Your task to perform on an android device: Open Android settings Image 0: 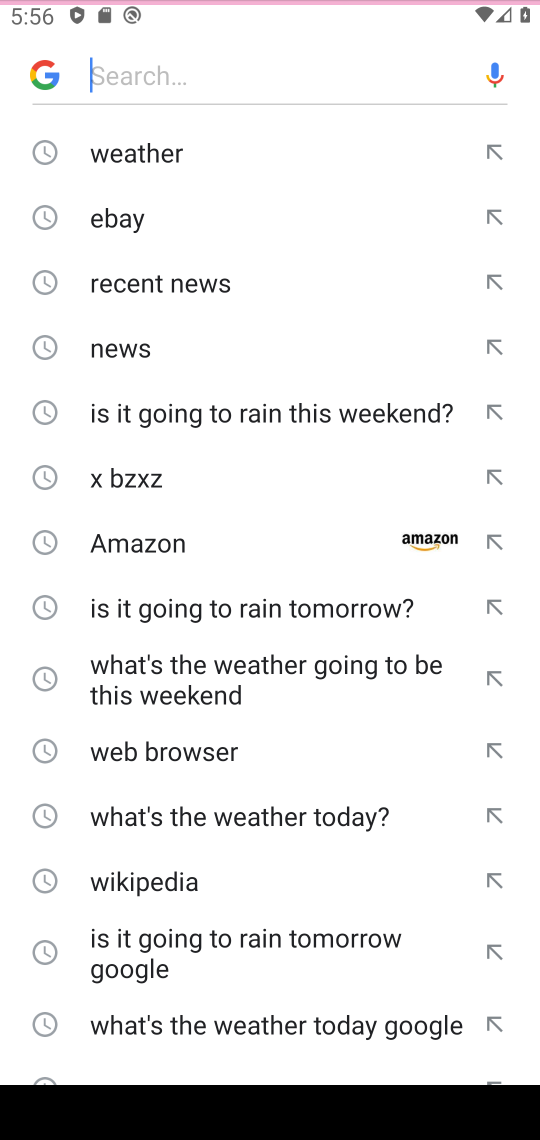
Step 0: press back button
Your task to perform on an android device: Open Android settings Image 1: 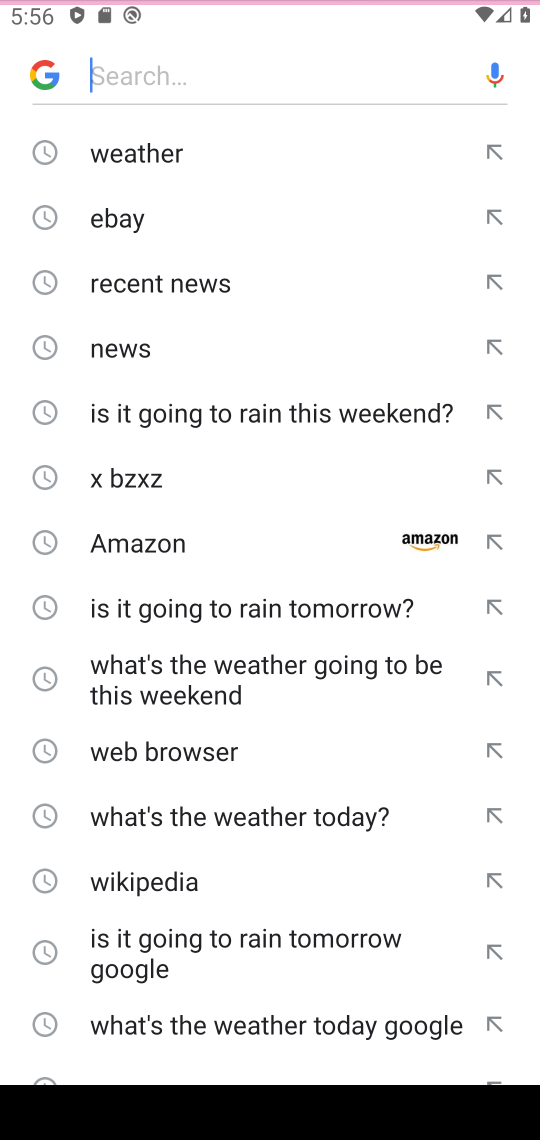
Step 1: drag from (93, 320) to (218, 322)
Your task to perform on an android device: Open Android settings Image 2: 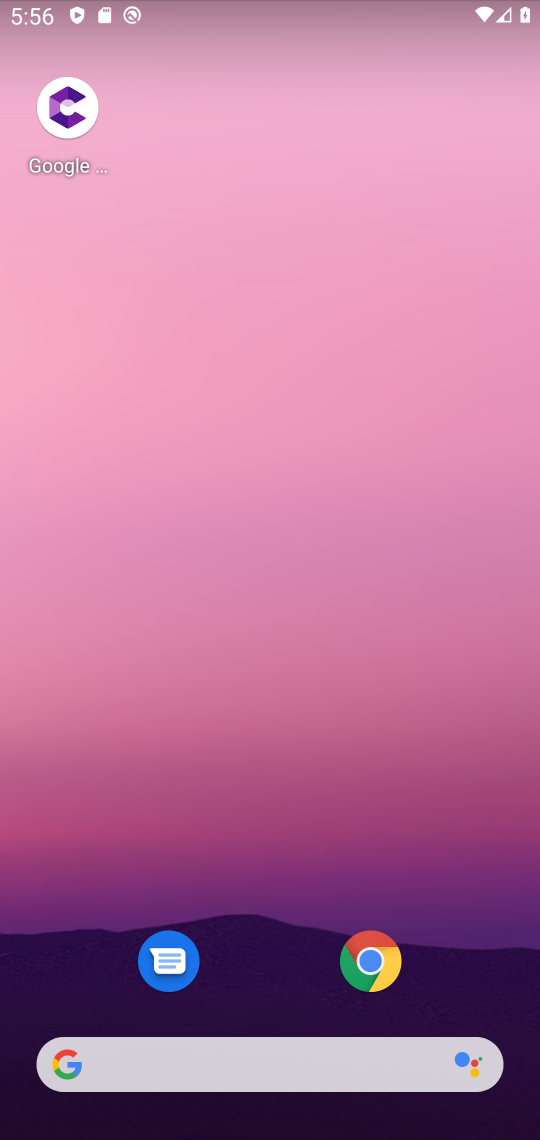
Step 2: press back button
Your task to perform on an android device: Open Android settings Image 3: 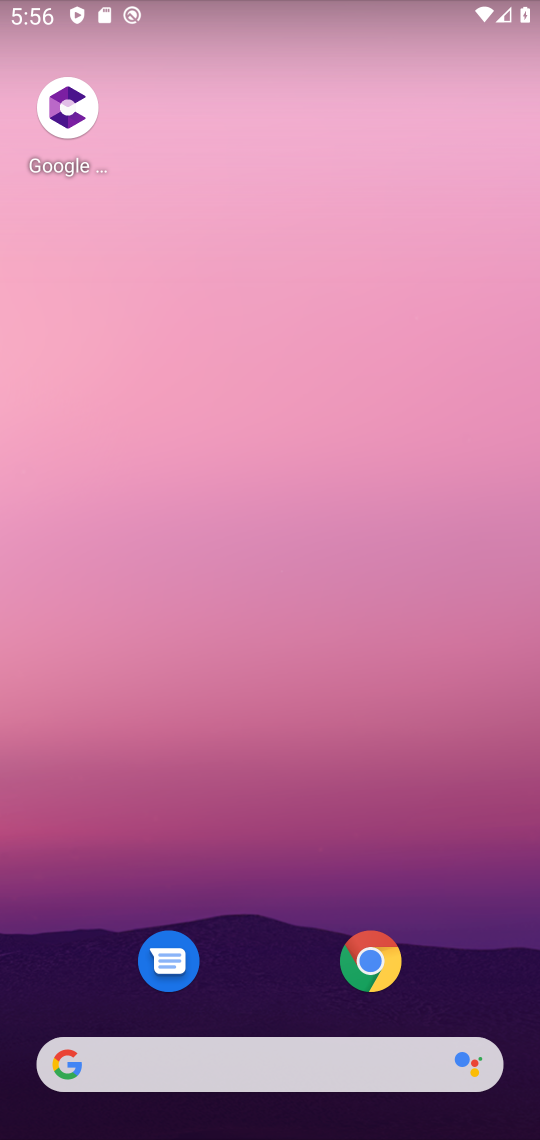
Step 3: click (172, 344)
Your task to perform on an android device: Open Android settings Image 4: 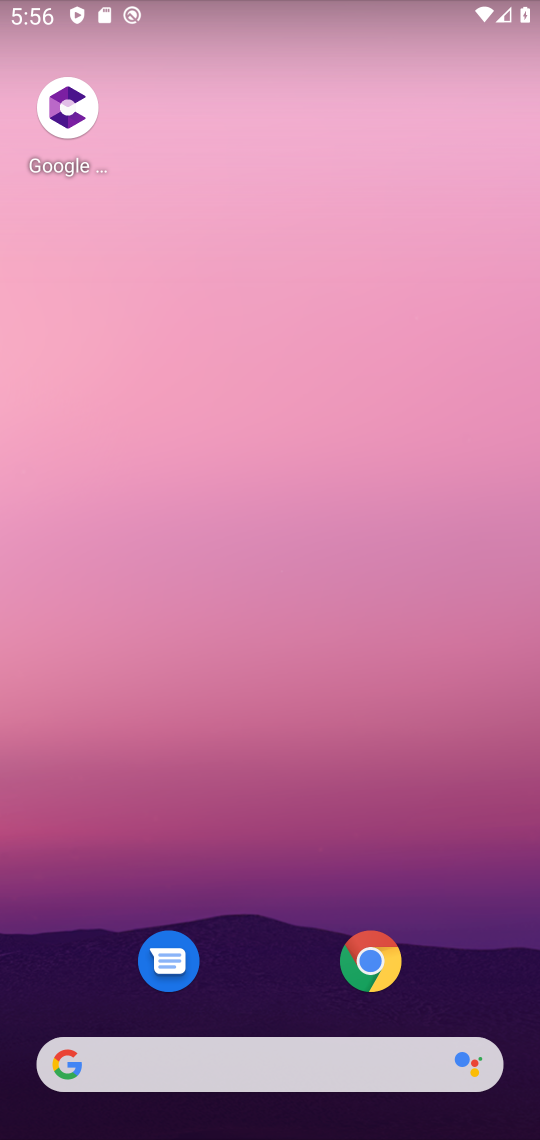
Step 4: press back button
Your task to perform on an android device: Open Android settings Image 5: 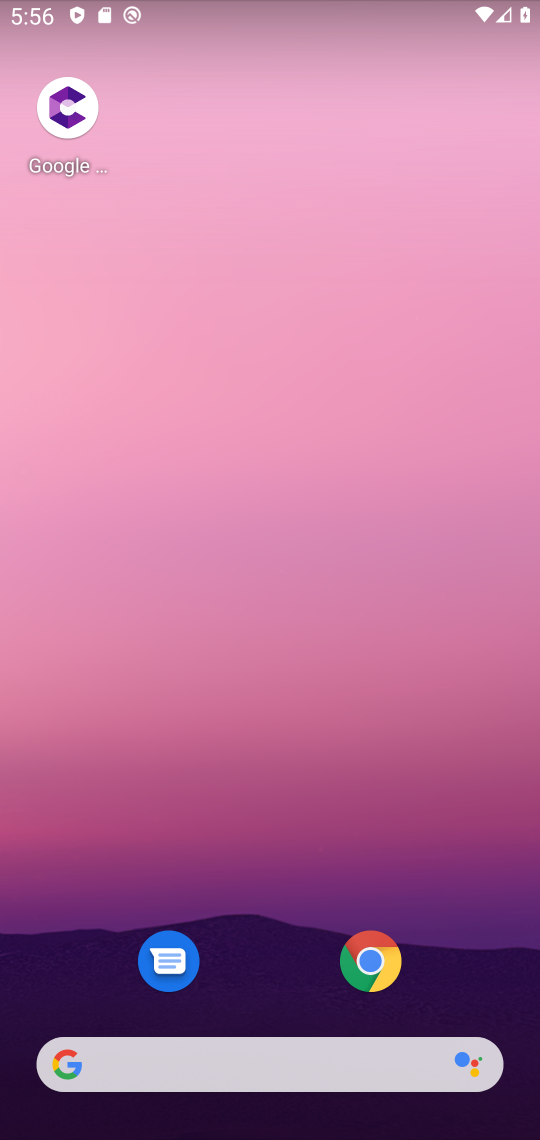
Step 5: drag from (277, 144) to (357, 209)
Your task to perform on an android device: Open Android settings Image 6: 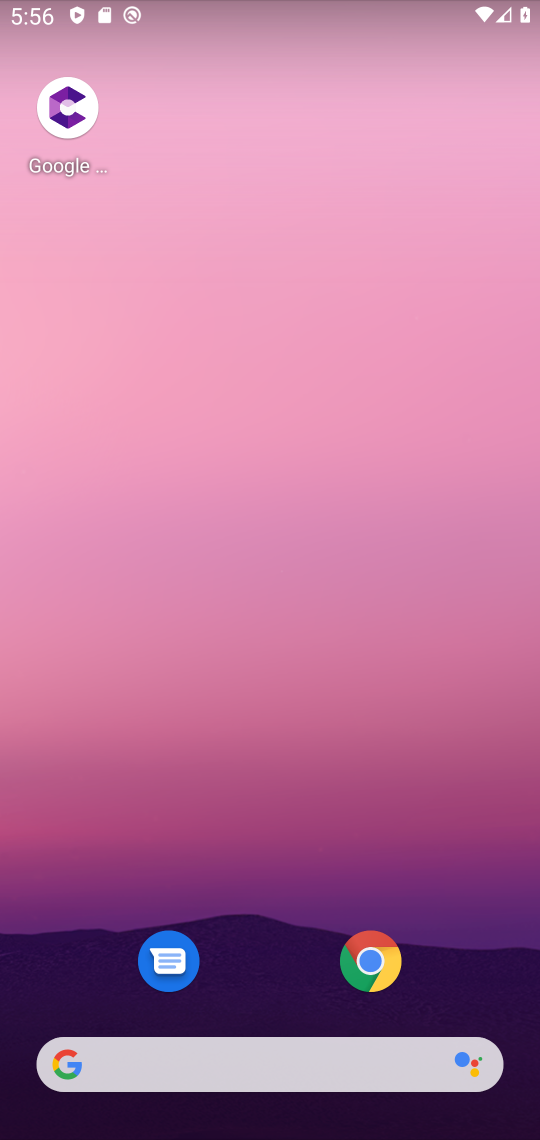
Step 6: drag from (347, 480) to (276, 264)
Your task to perform on an android device: Open Android settings Image 7: 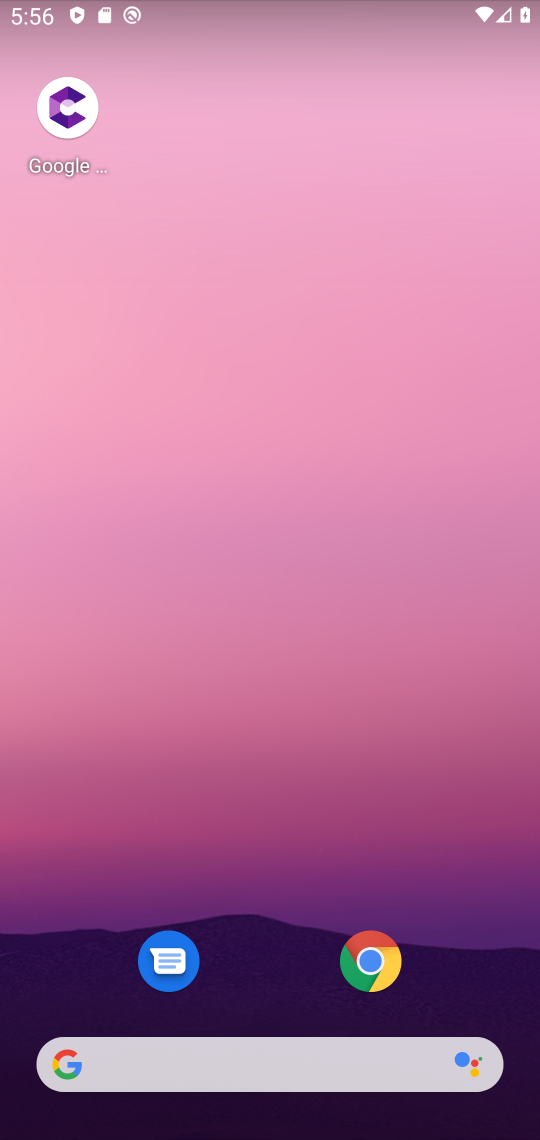
Step 7: drag from (270, 833) to (304, 142)
Your task to perform on an android device: Open Android settings Image 8: 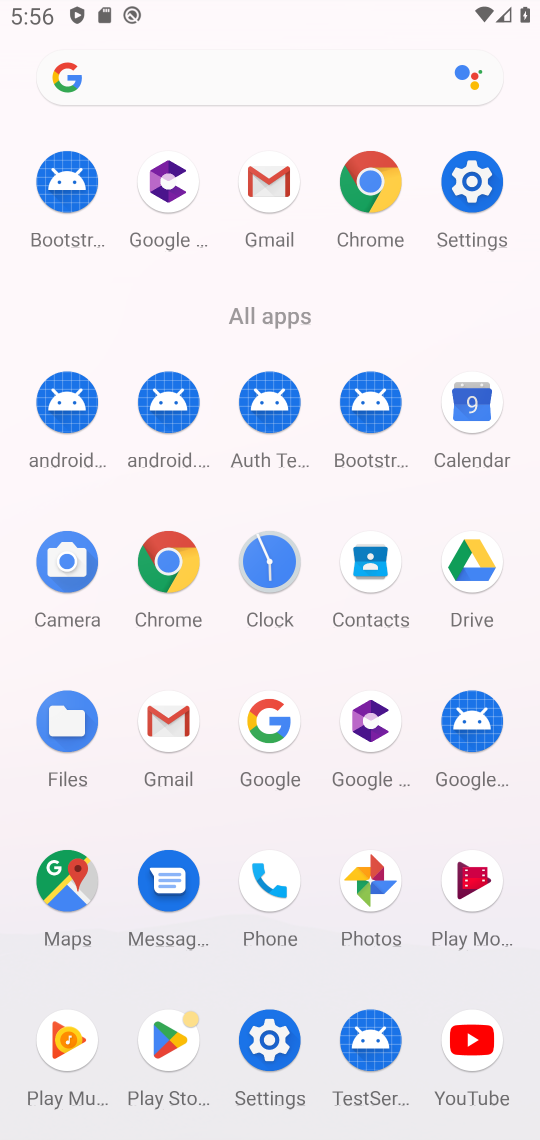
Step 8: click (471, 178)
Your task to perform on an android device: Open Android settings Image 9: 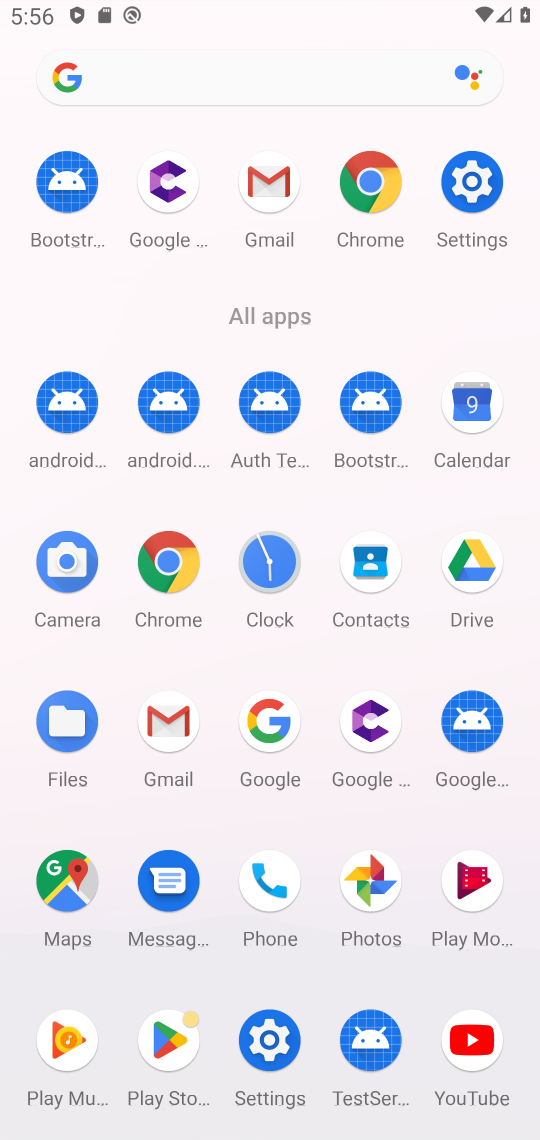
Step 9: click (470, 176)
Your task to perform on an android device: Open Android settings Image 10: 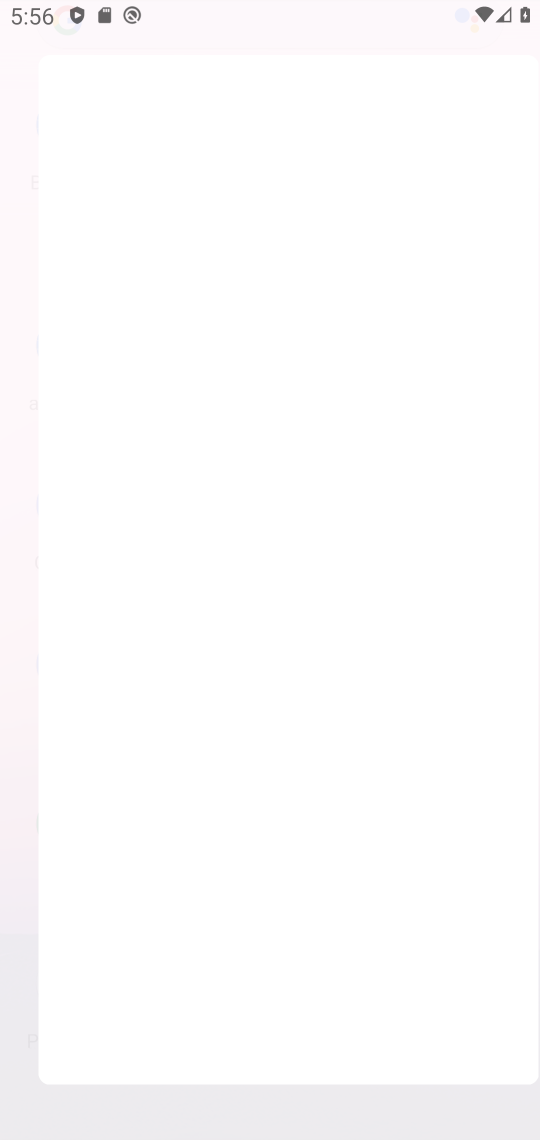
Step 10: click (468, 172)
Your task to perform on an android device: Open Android settings Image 11: 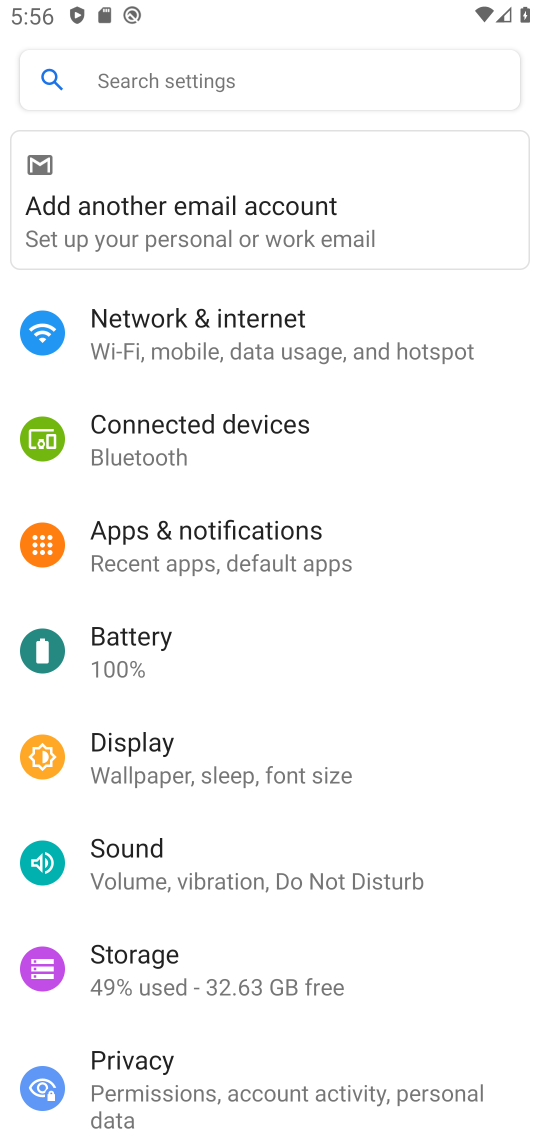
Step 11: drag from (200, 986) to (234, 301)
Your task to perform on an android device: Open Android settings Image 12: 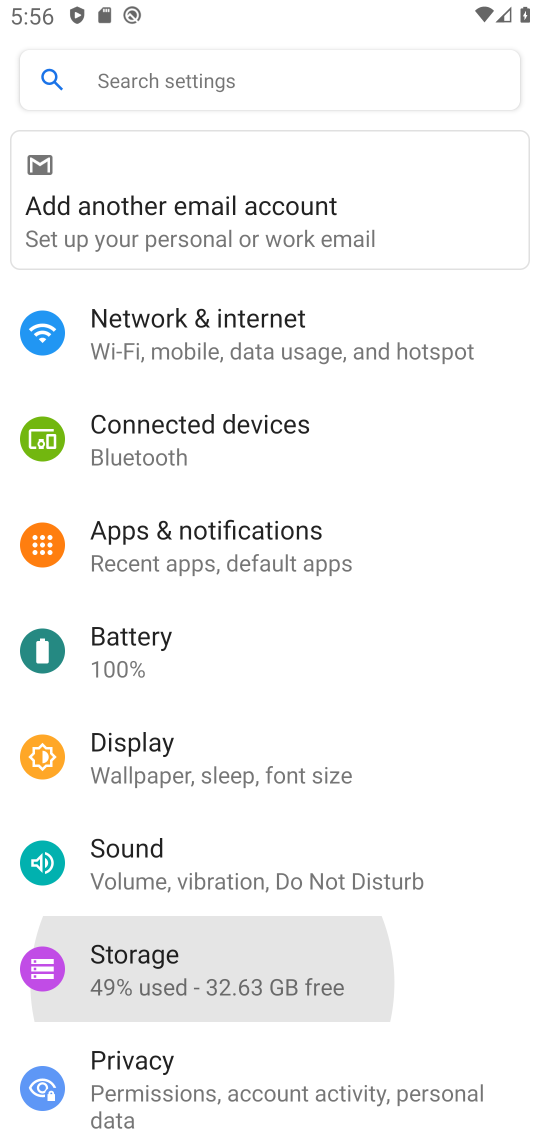
Step 12: drag from (221, 727) to (221, 243)
Your task to perform on an android device: Open Android settings Image 13: 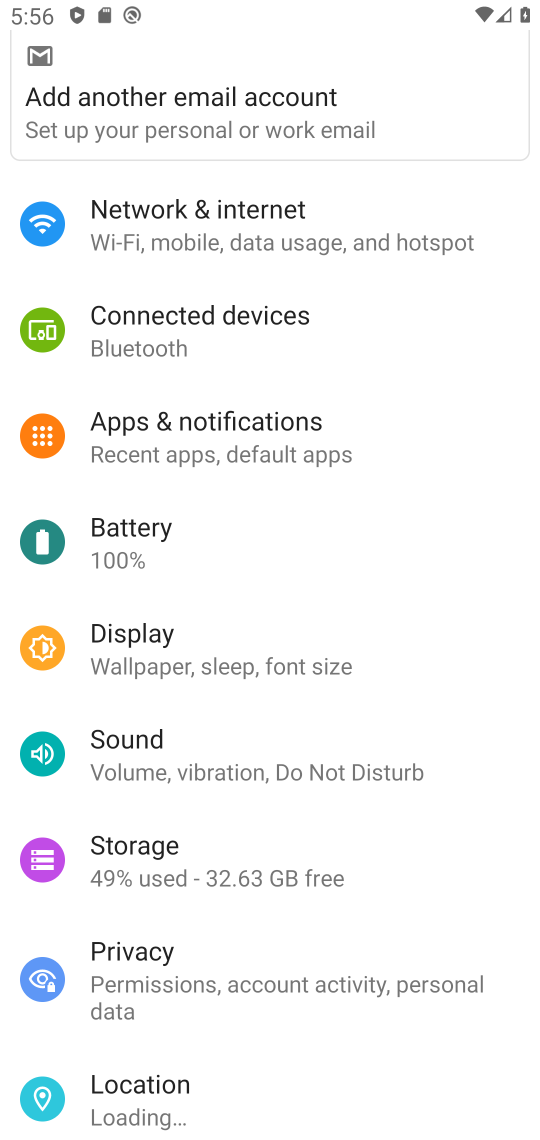
Step 13: drag from (306, 817) to (285, 326)
Your task to perform on an android device: Open Android settings Image 14: 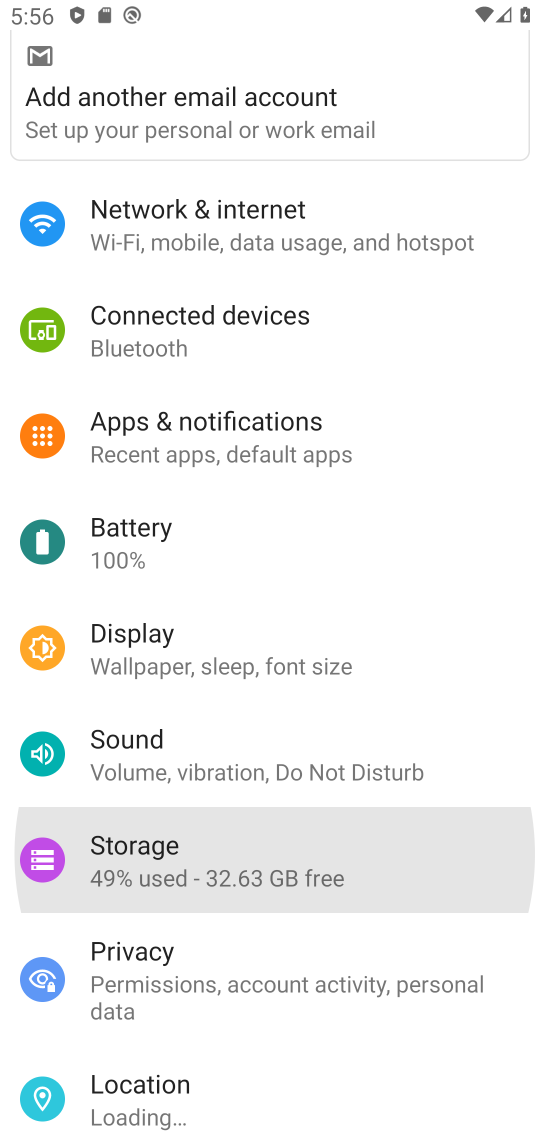
Step 14: drag from (256, 834) to (221, 274)
Your task to perform on an android device: Open Android settings Image 15: 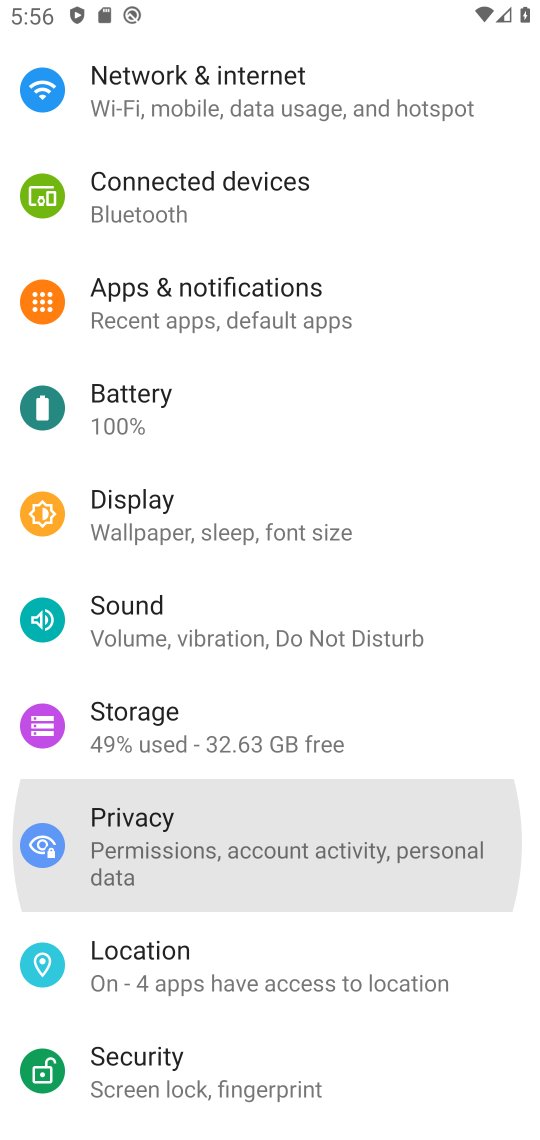
Step 15: drag from (271, 926) to (240, 210)
Your task to perform on an android device: Open Android settings Image 16: 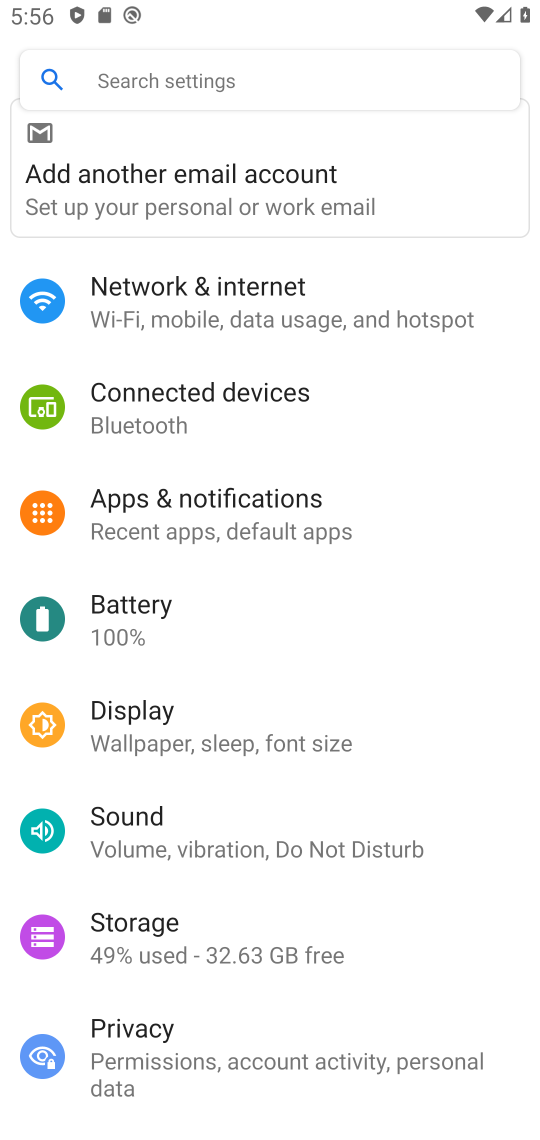
Step 16: drag from (231, 990) to (173, 271)
Your task to perform on an android device: Open Android settings Image 17: 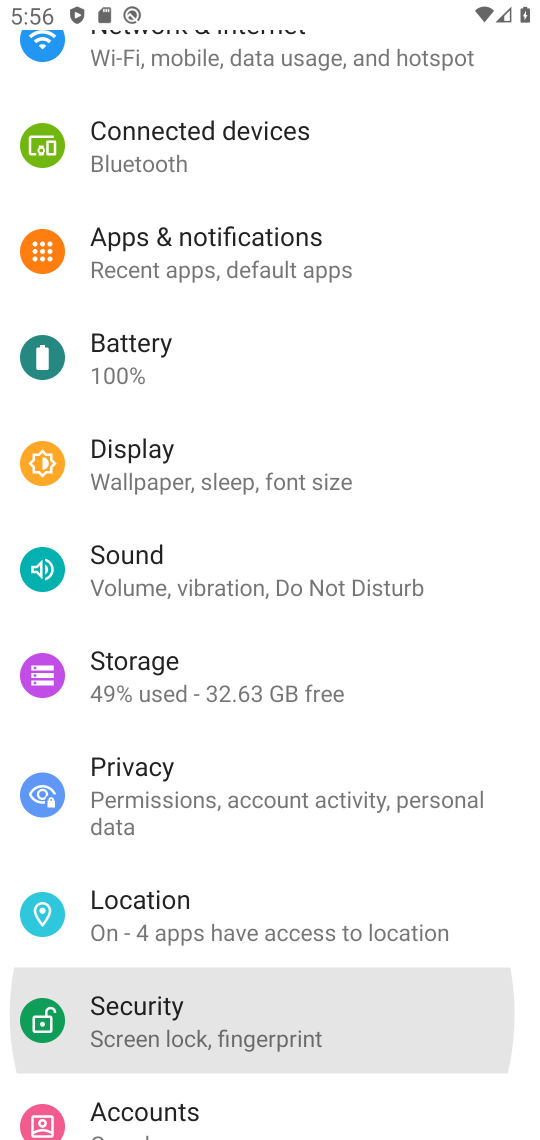
Step 17: drag from (201, 916) to (198, 359)
Your task to perform on an android device: Open Android settings Image 18: 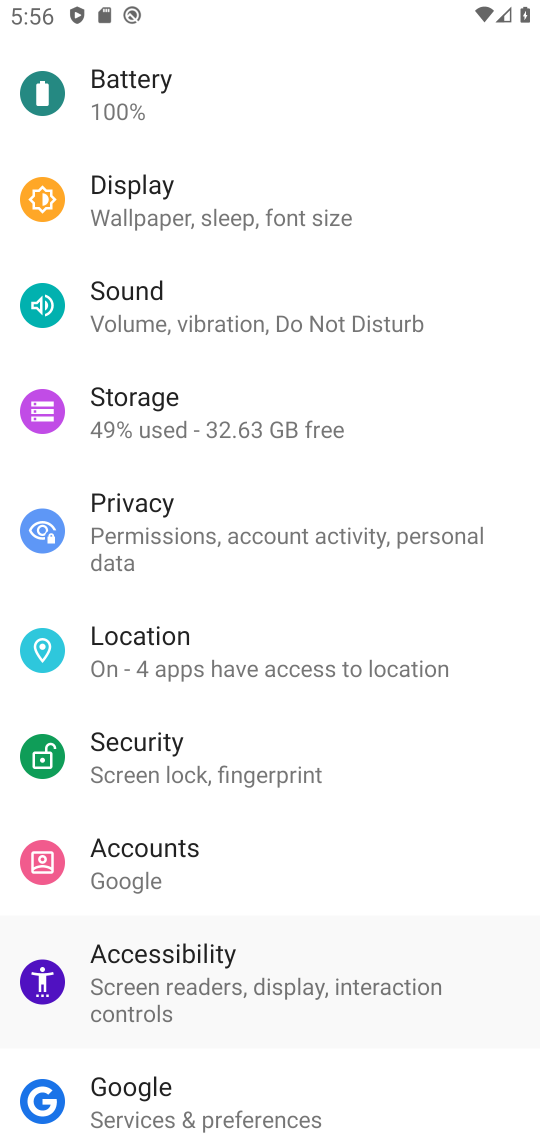
Step 18: drag from (216, 1023) to (196, 209)
Your task to perform on an android device: Open Android settings Image 19: 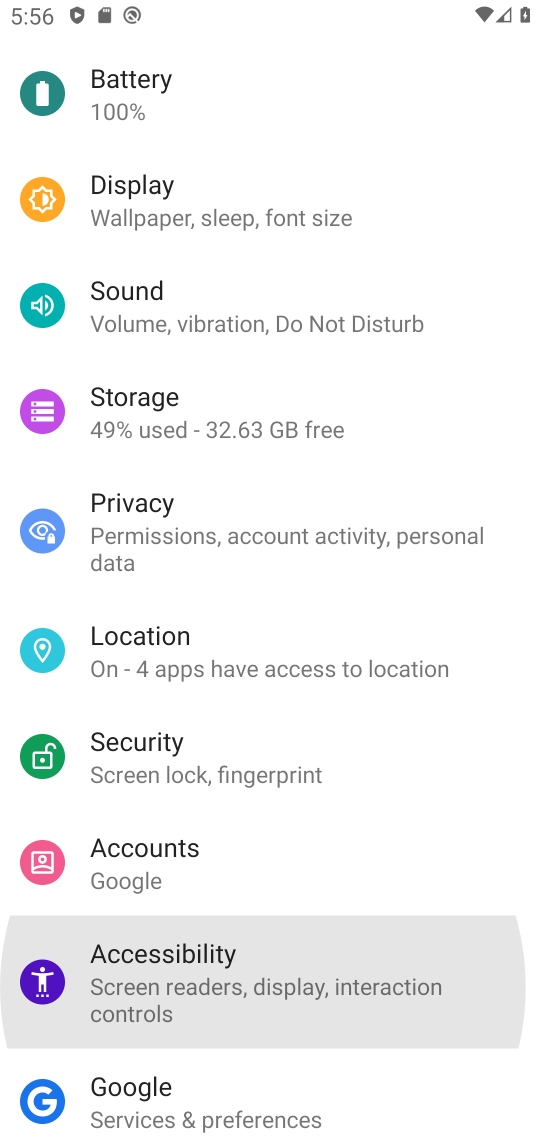
Step 19: drag from (249, 881) to (248, 269)
Your task to perform on an android device: Open Android settings Image 20: 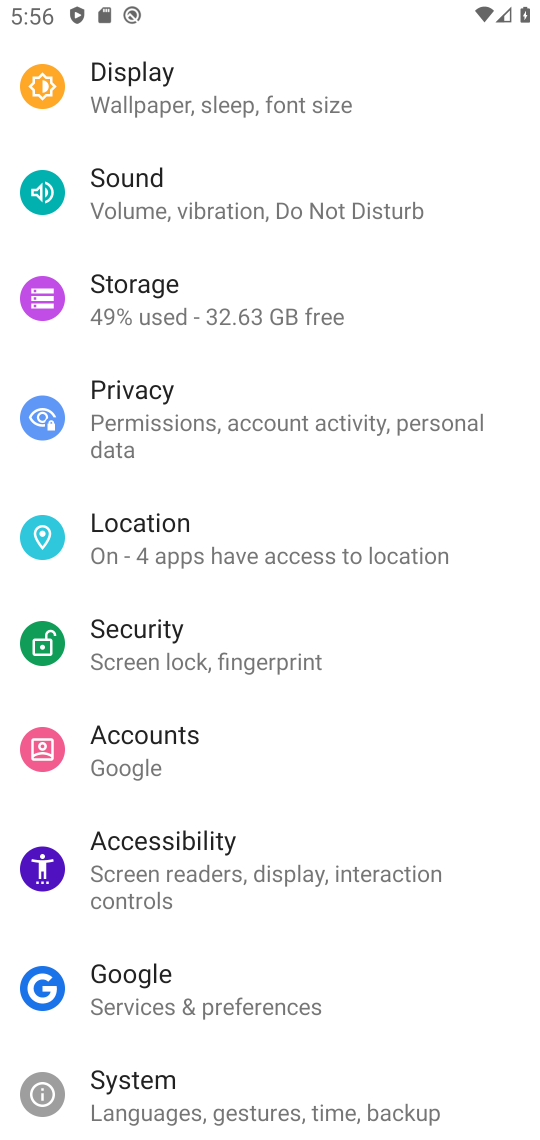
Step 20: drag from (315, 992) to (369, 357)
Your task to perform on an android device: Open Android settings Image 21: 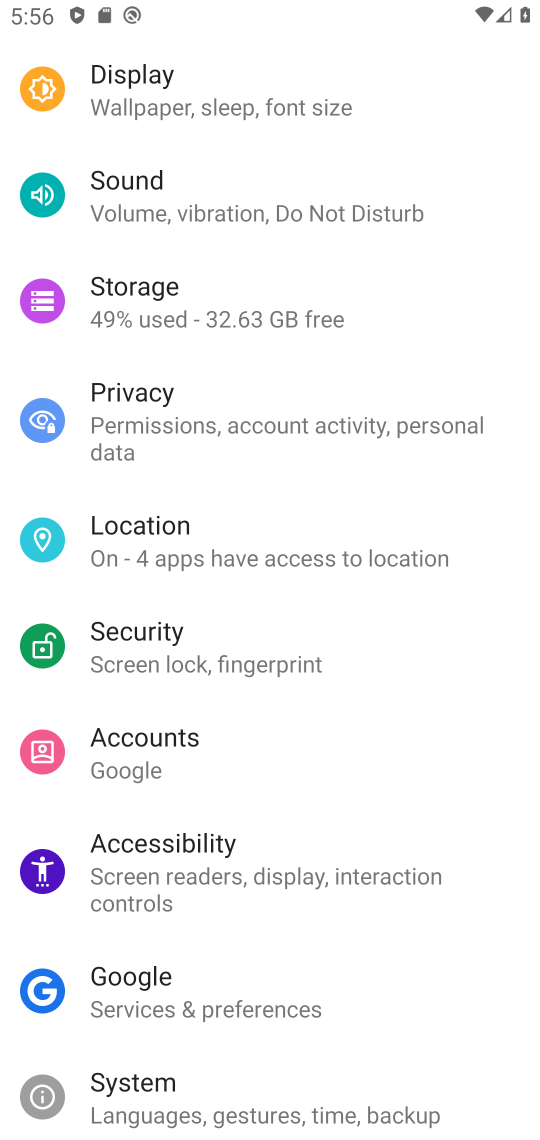
Step 21: drag from (285, 753) to (313, 89)
Your task to perform on an android device: Open Android settings Image 22: 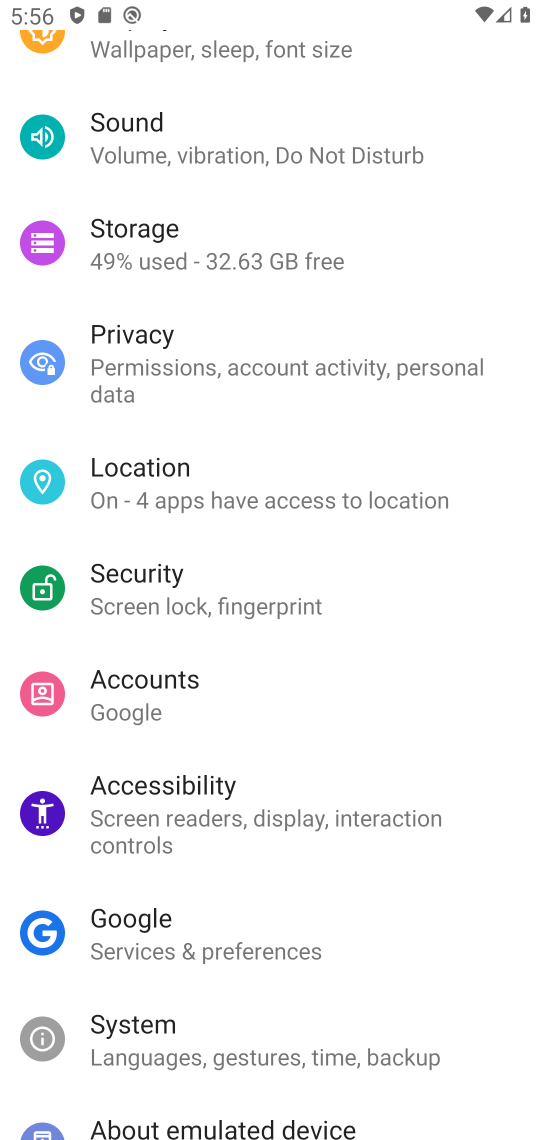
Step 22: drag from (172, 715) to (266, 472)
Your task to perform on an android device: Open Android settings Image 23: 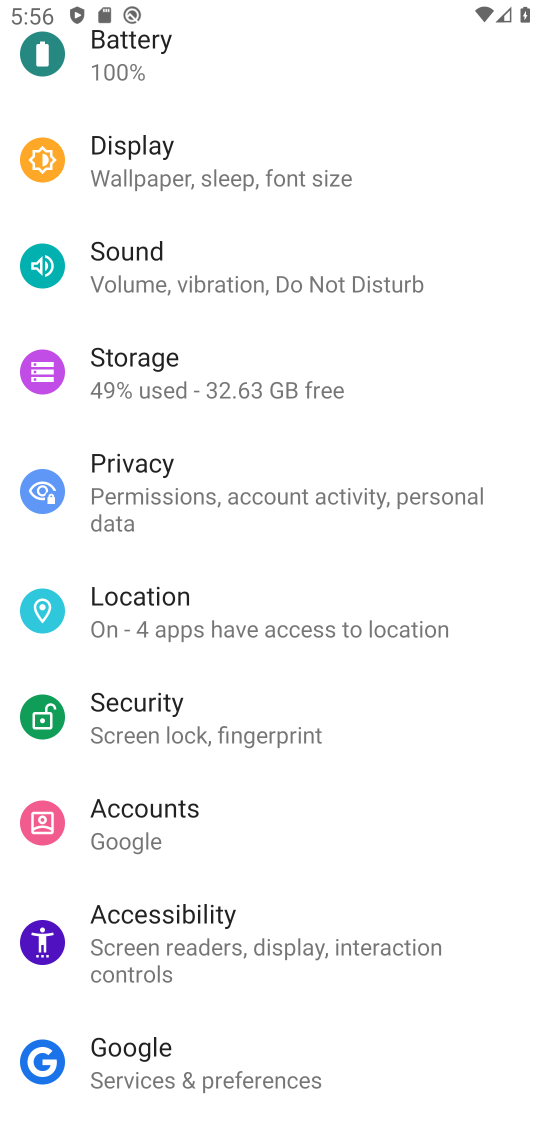
Step 23: drag from (210, 889) to (236, 226)
Your task to perform on an android device: Open Android settings Image 24: 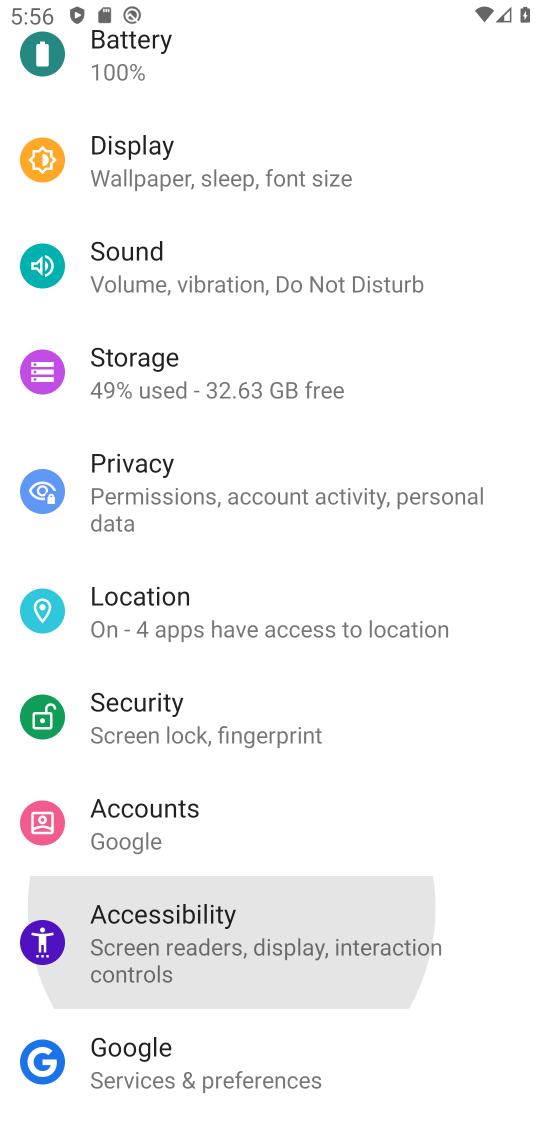
Step 24: drag from (168, 952) to (293, 374)
Your task to perform on an android device: Open Android settings Image 25: 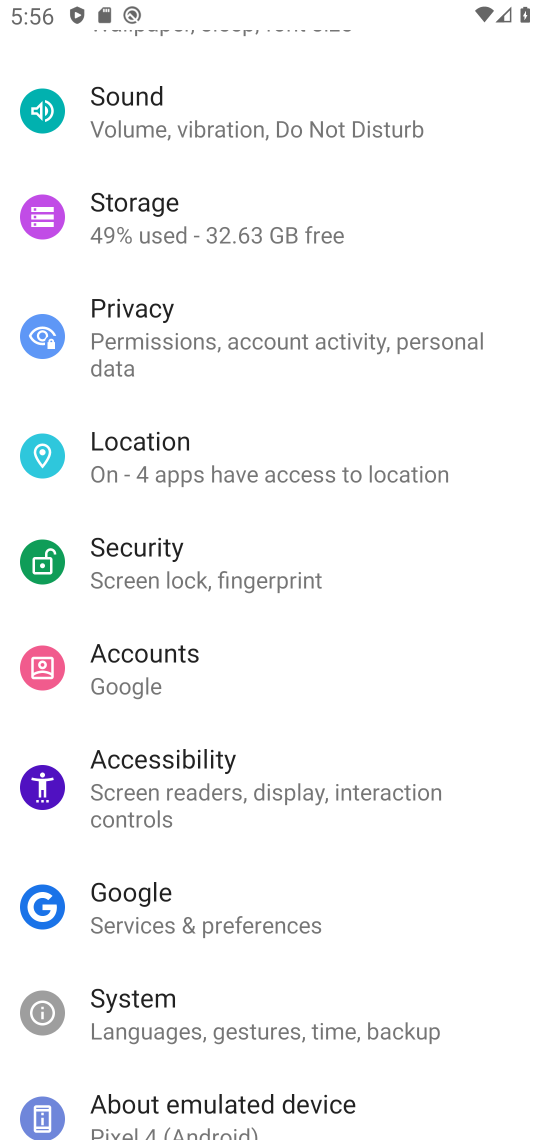
Step 25: click (177, 1097)
Your task to perform on an android device: Open Android settings Image 26: 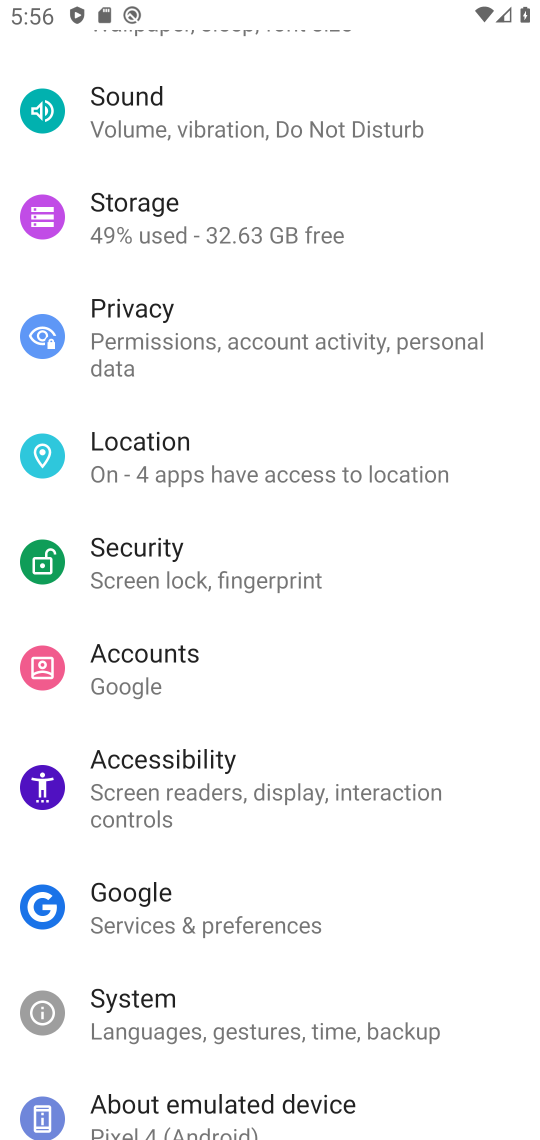
Step 26: click (177, 1097)
Your task to perform on an android device: Open Android settings Image 27: 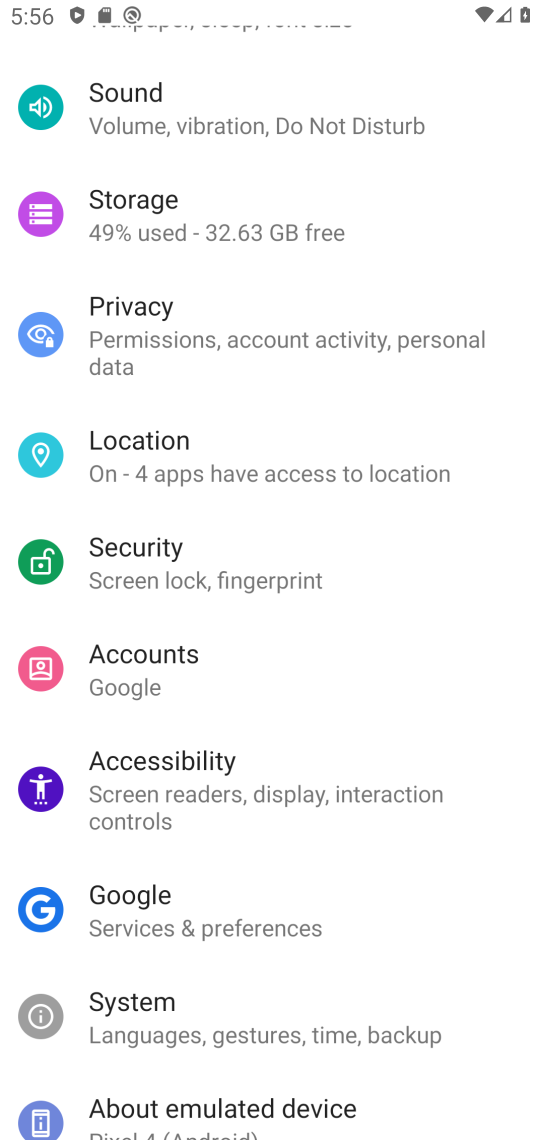
Step 27: click (190, 1121)
Your task to perform on an android device: Open Android settings Image 28: 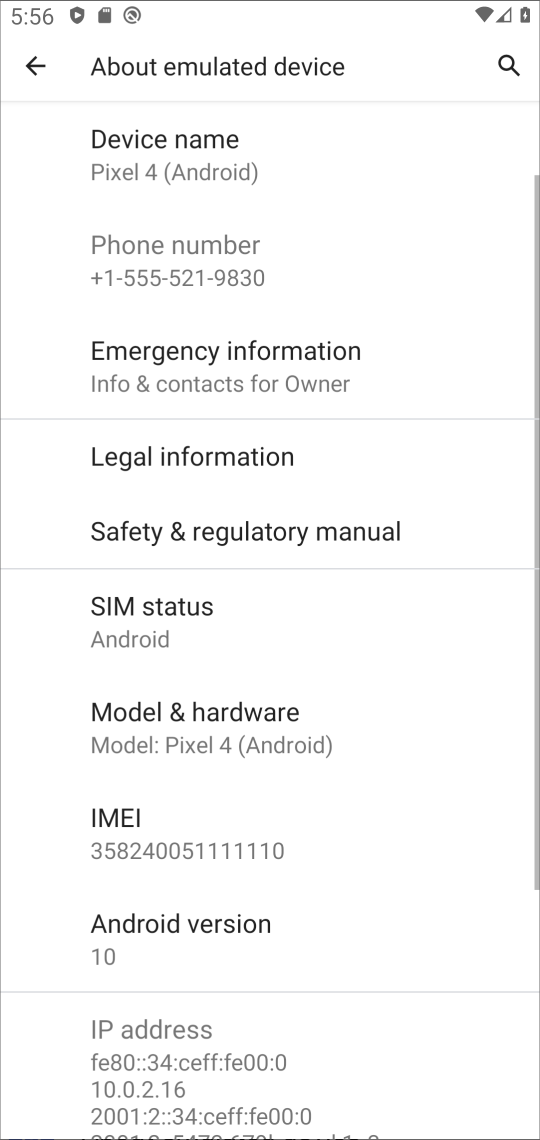
Step 28: click (191, 1121)
Your task to perform on an android device: Open Android settings Image 29: 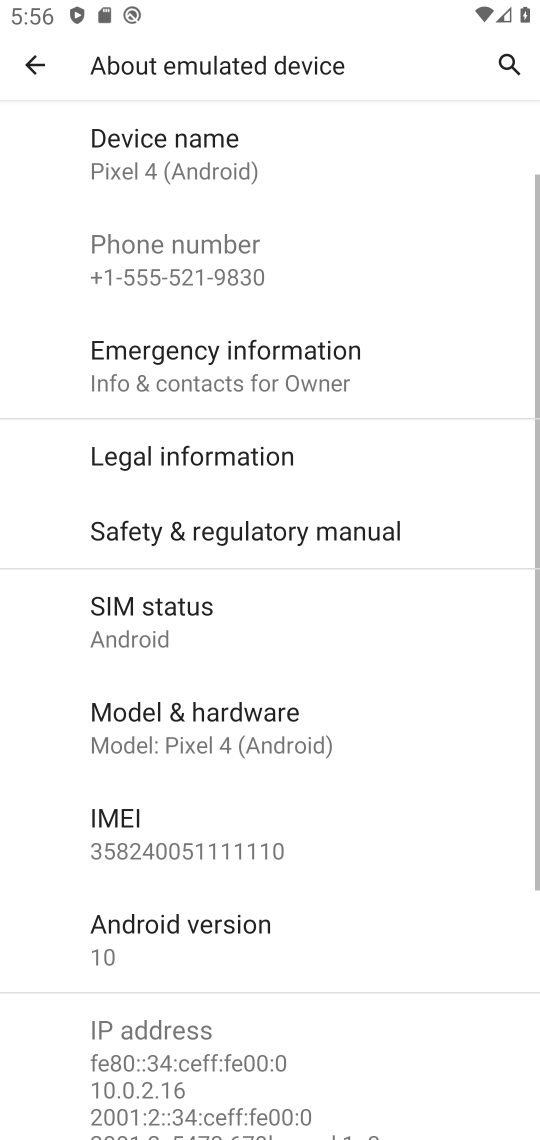
Step 29: click (192, 1119)
Your task to perform on an android device: Open Android settings Image 30: 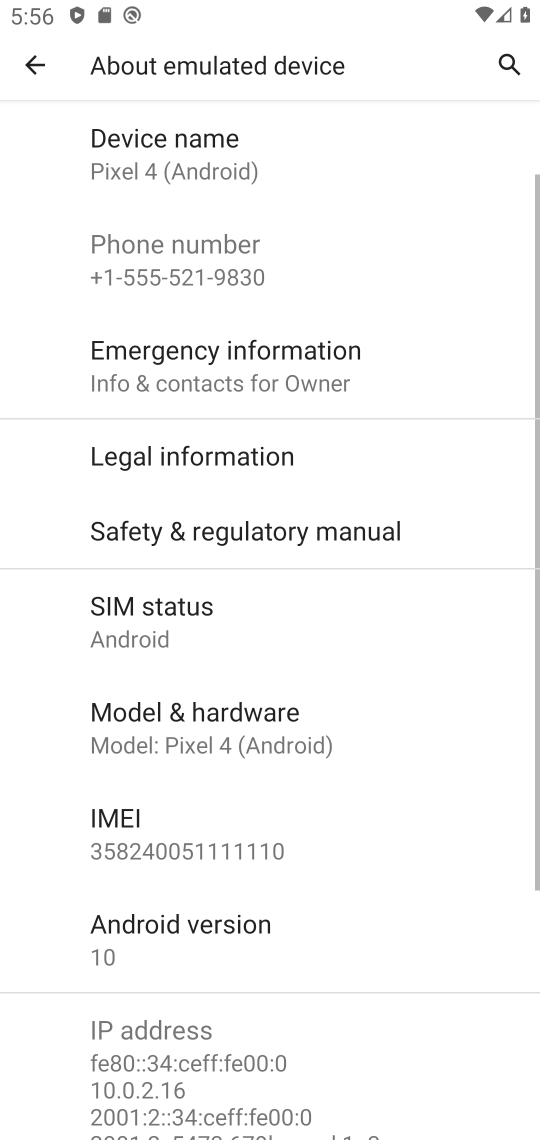
Step 30: task complete